Your task to perform on an android device: Search for "usb-c to usb-a" on amazon, select the first entry, add it to the cart, then select checkout. Image 0: 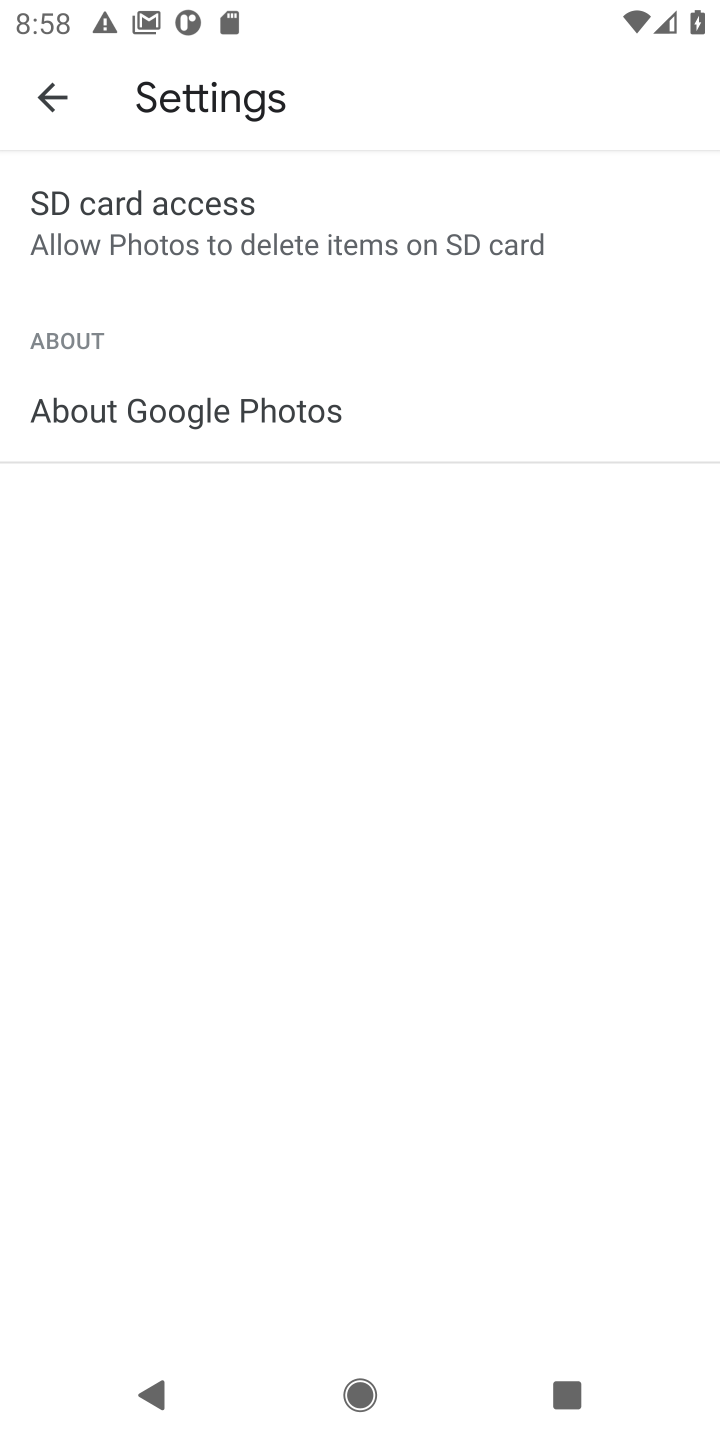
Step 0: press home button
Your task to perform on an android device: Search for "usb-c to usb-a" on amazon, select the first entry, add it to the cart, then select checkout. Image 1: 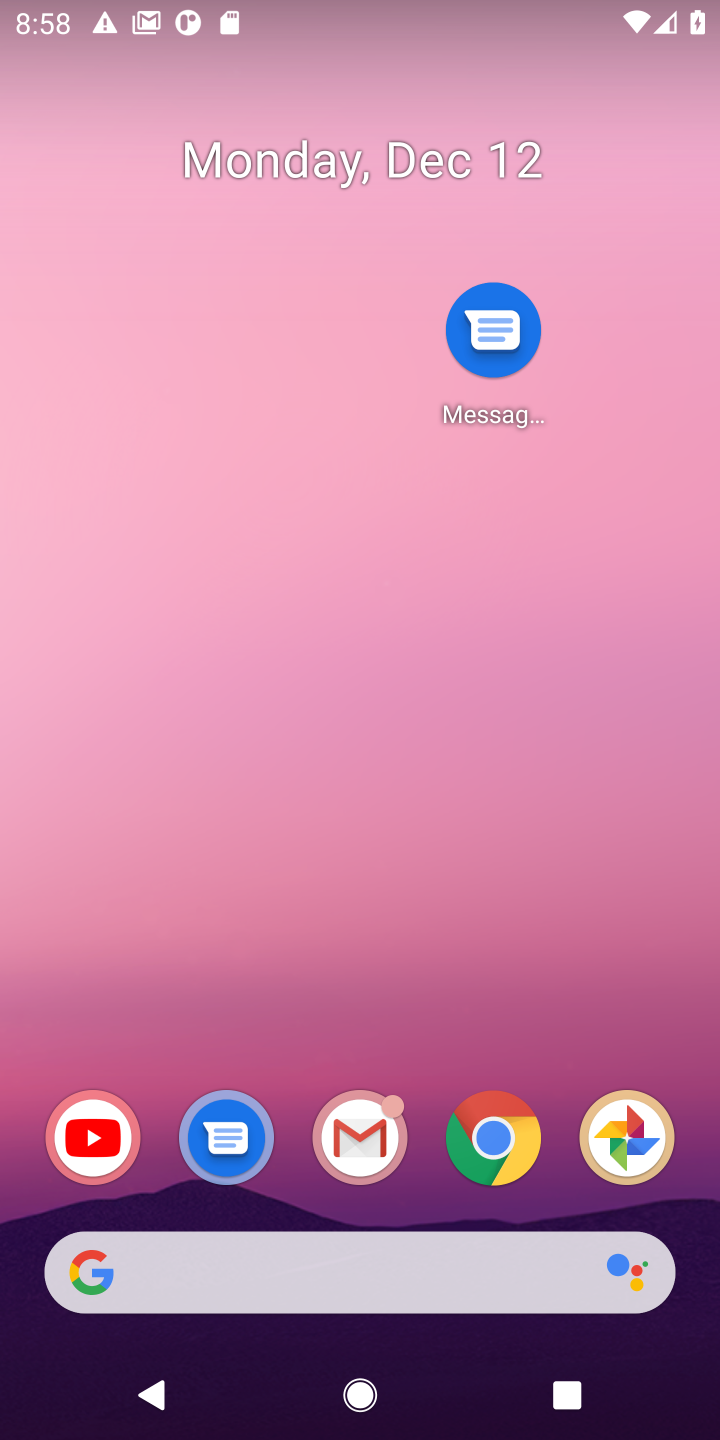
Step 1: drag from (263, 1111) to (241, 380)
Your task to perform on an android device: Search for "usb-c to usb-a" on amazon, select the first entry, add it to the cart, then select checkout. Image 2: 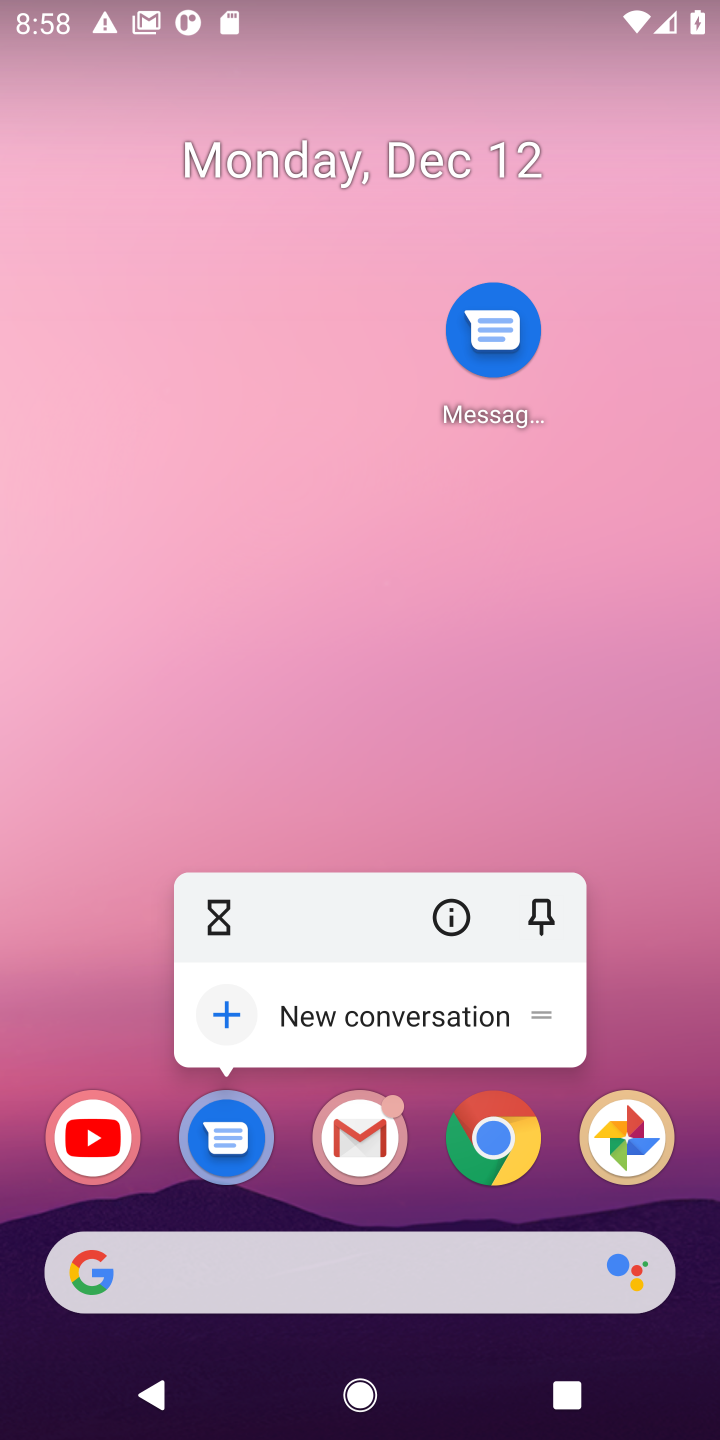
Step 2: click (146, 775)
Your task to perform on an android device: Search for "usb-c to usb-a" on amazon, select the first entry, add it to the cart, then select checkout. Image 3: 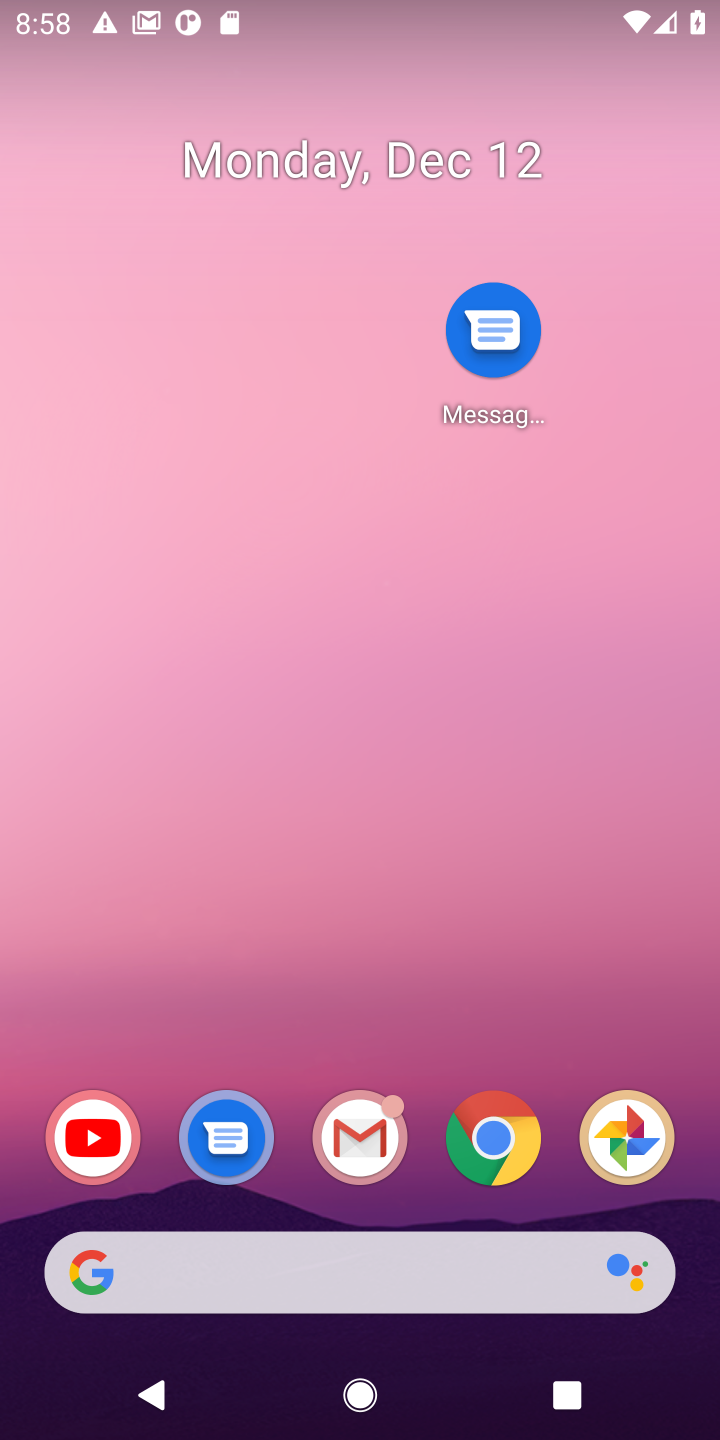
Step 3: drag from (346, 1228) to (418, 682)
Your task to perform on an android device: Search for "usb-c to usb-a" on amazon, select the first entry, add it to the cart, then select checkout. Image 4: 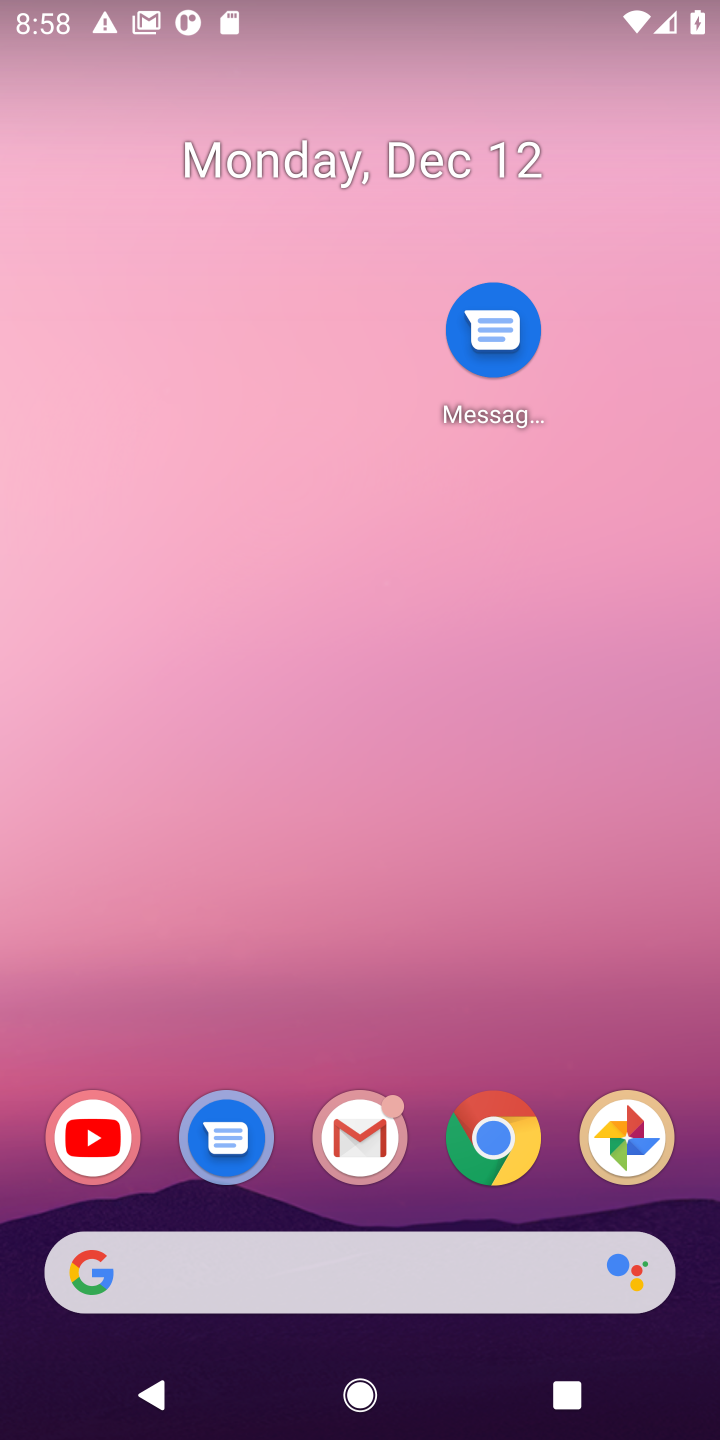
Step 4: drag from (299, 1149) to (213, 340)
Your task to perform on an android device: Search for "usb-c to usb-a" on amazon, select the first entry, add it to the cart, then select checkout. Image 5: 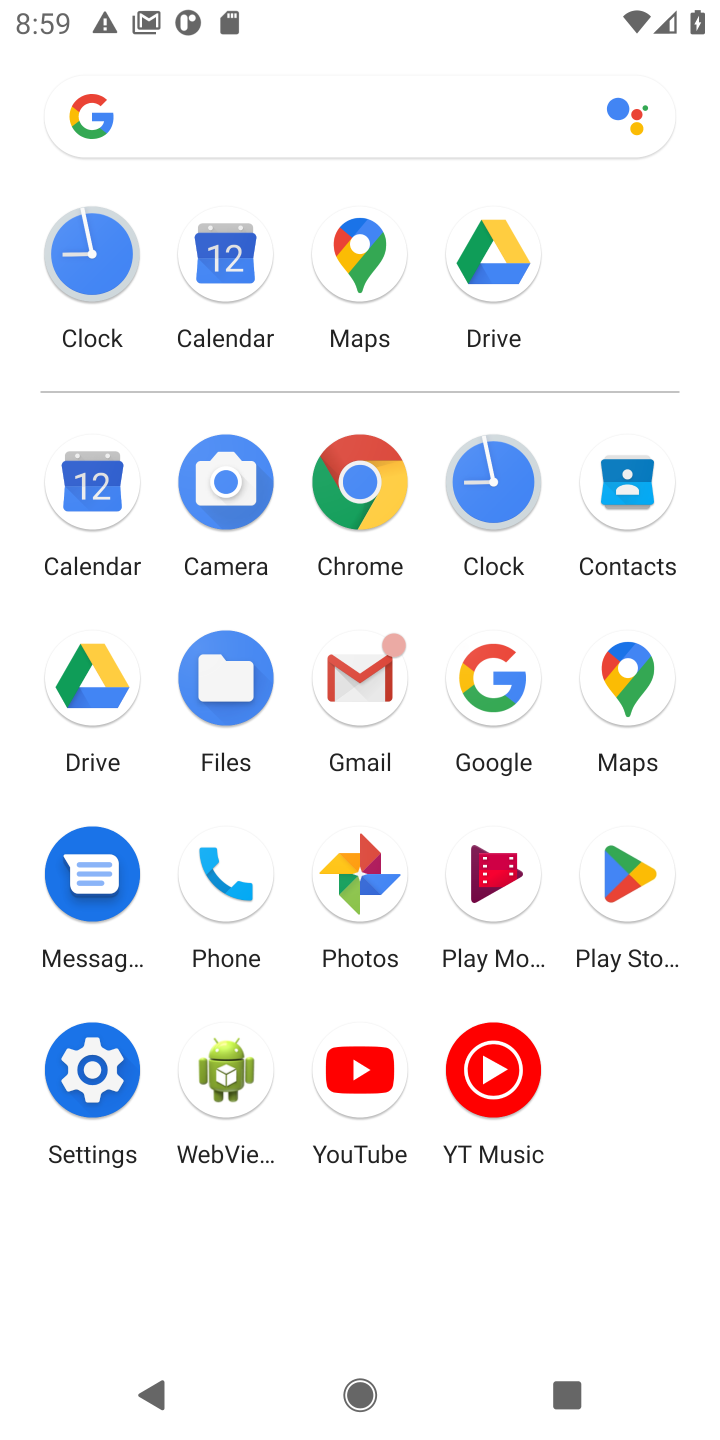
Step 5: click (479, 665)
Your task to perform on an android device: Search for "usb-c to usb-a" on amazon, select the first entry, add it to the cart, then select checkout. Image 6: 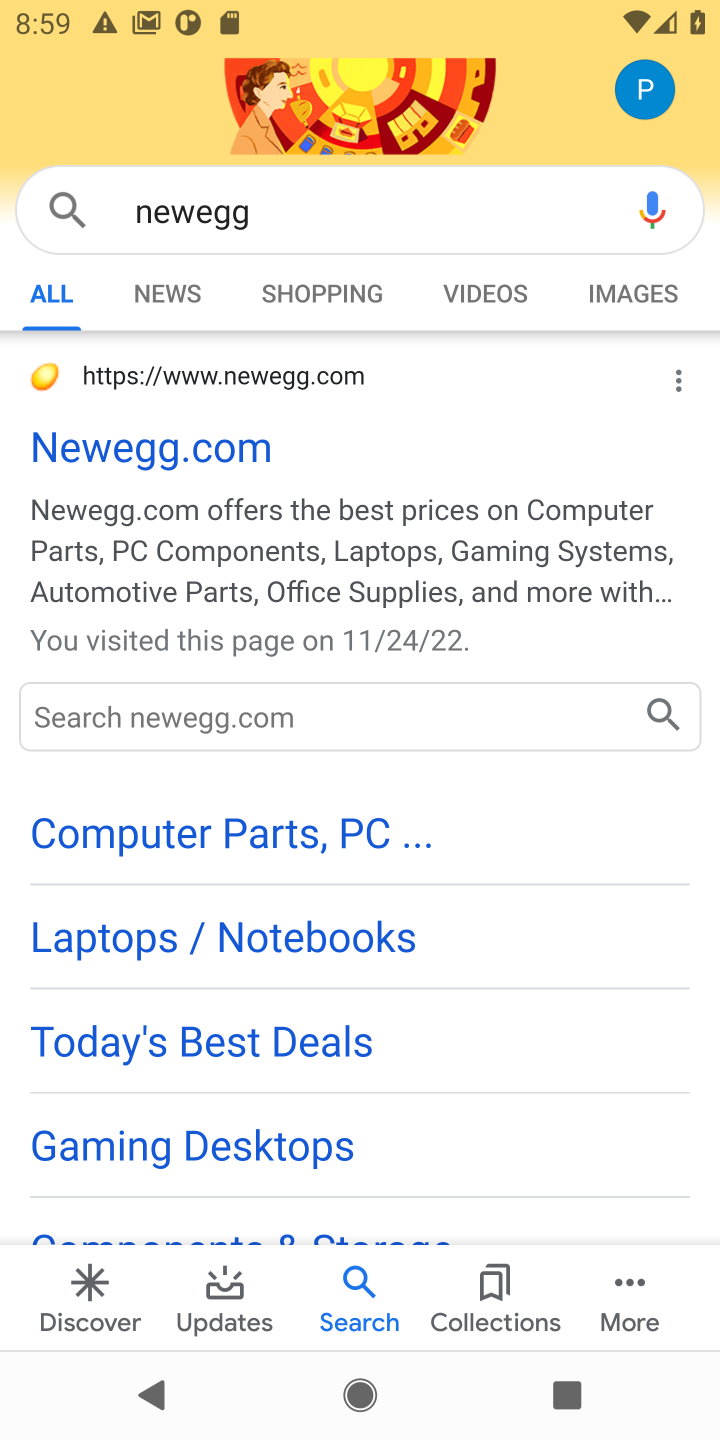
Step 6: click (171, 215)
Your task to perform on an android device: Search for "usb-c to usb-a" on amazon, select the first entry, add it to the cart, then select checkout. Image 7: 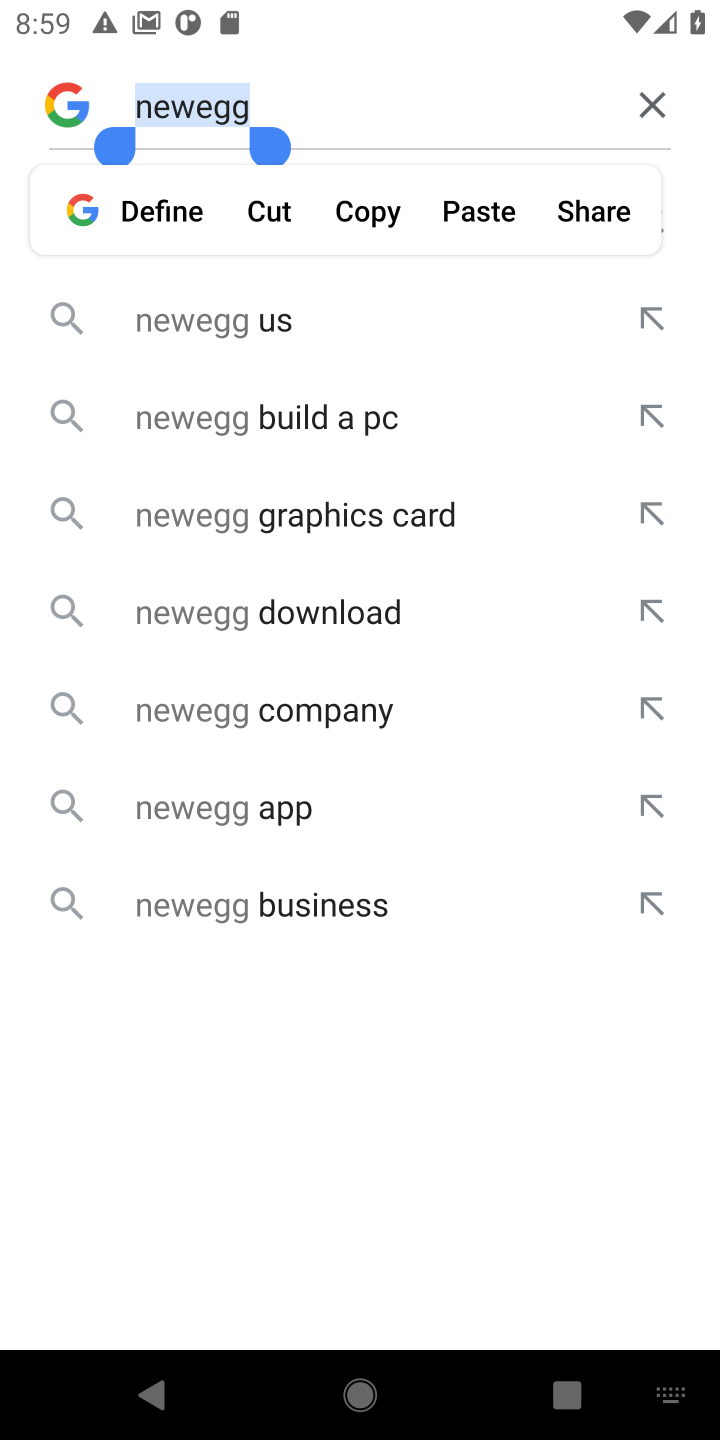
Step 7: click (641, 108)
Your task to perform on an android device: Search for "usb-c to usb-a" on amazon, select the first entry, add it to the cart, then select checkout. Image 8: 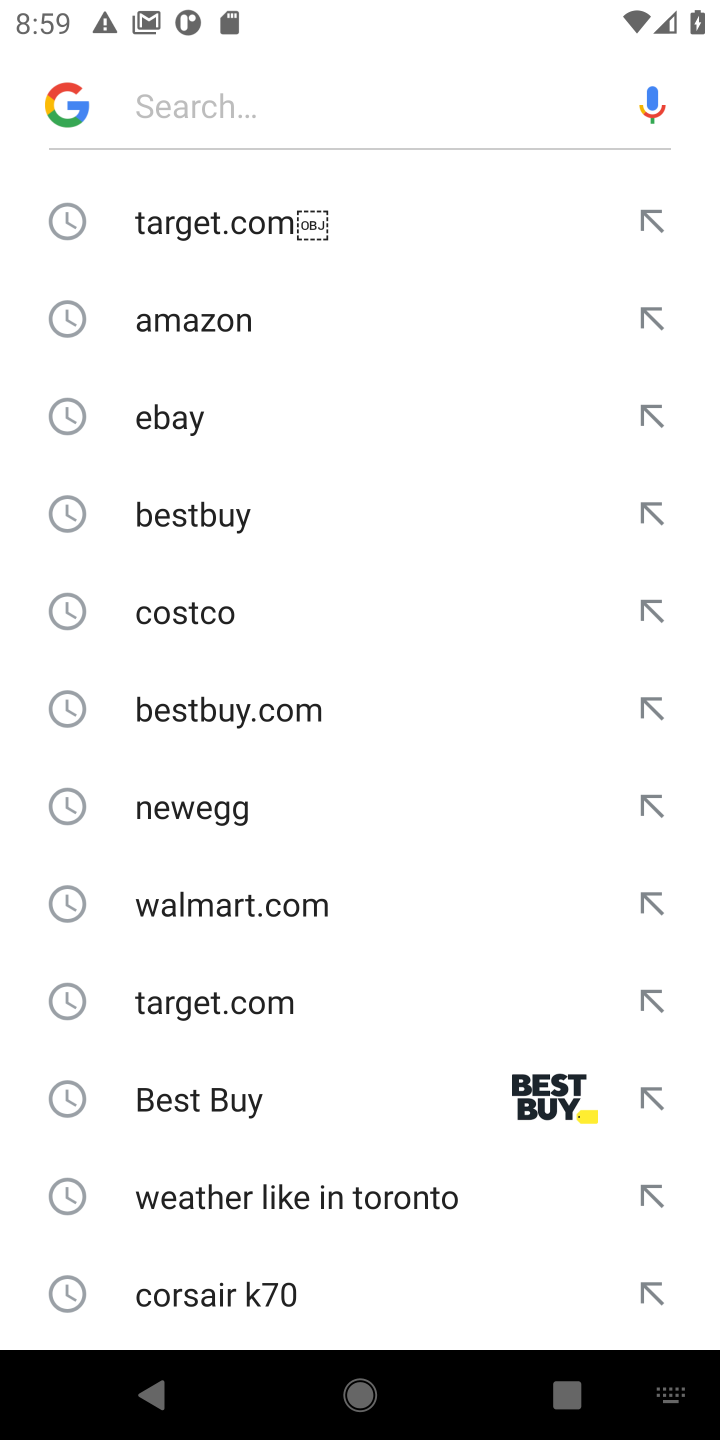
Step 8: click (205, 326)
Your task to perform on an android device: Search for "usb-c to usb-a" on amazon, select the first entry, add it to the cart, then select checkout. Image 9: 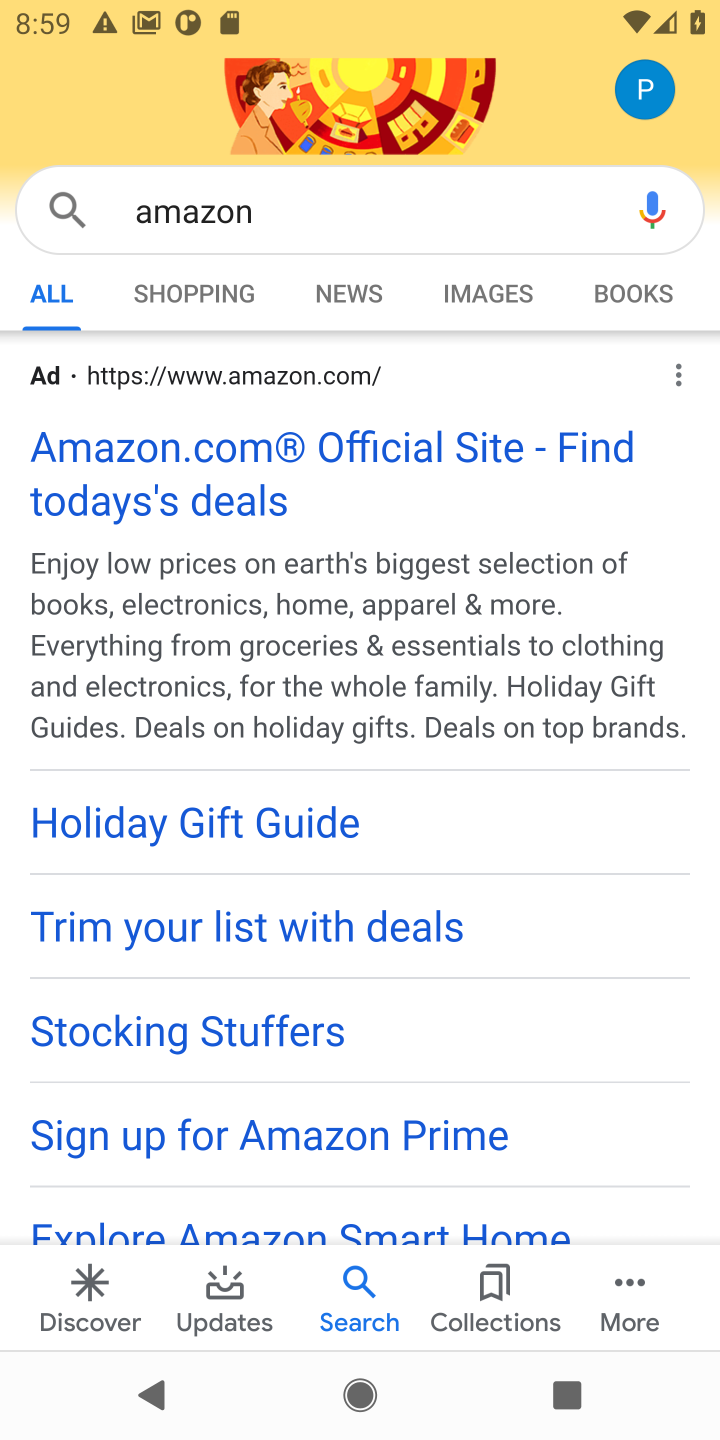
Step 9: click (189, 480)
Your task to perform on an android device: Search for "usb-c to usb-a" on amazon, select the first entry, add it to the cart, then select checkout. Image 10: 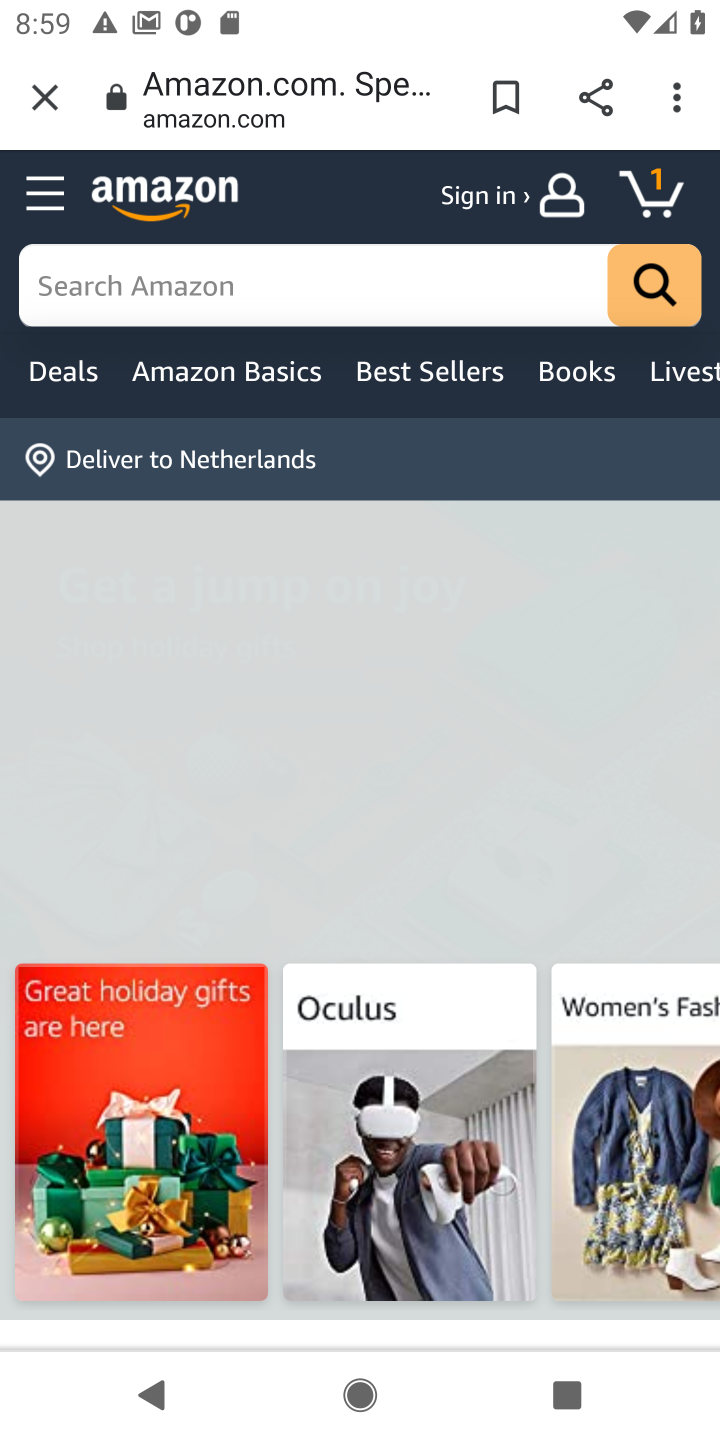
Step 10: click (170, 302)
Your task to perform on an android device: Search for "usb-c to usb-a" on amazon, select the first entry, add it to the cart, then select checkout. Image 11: 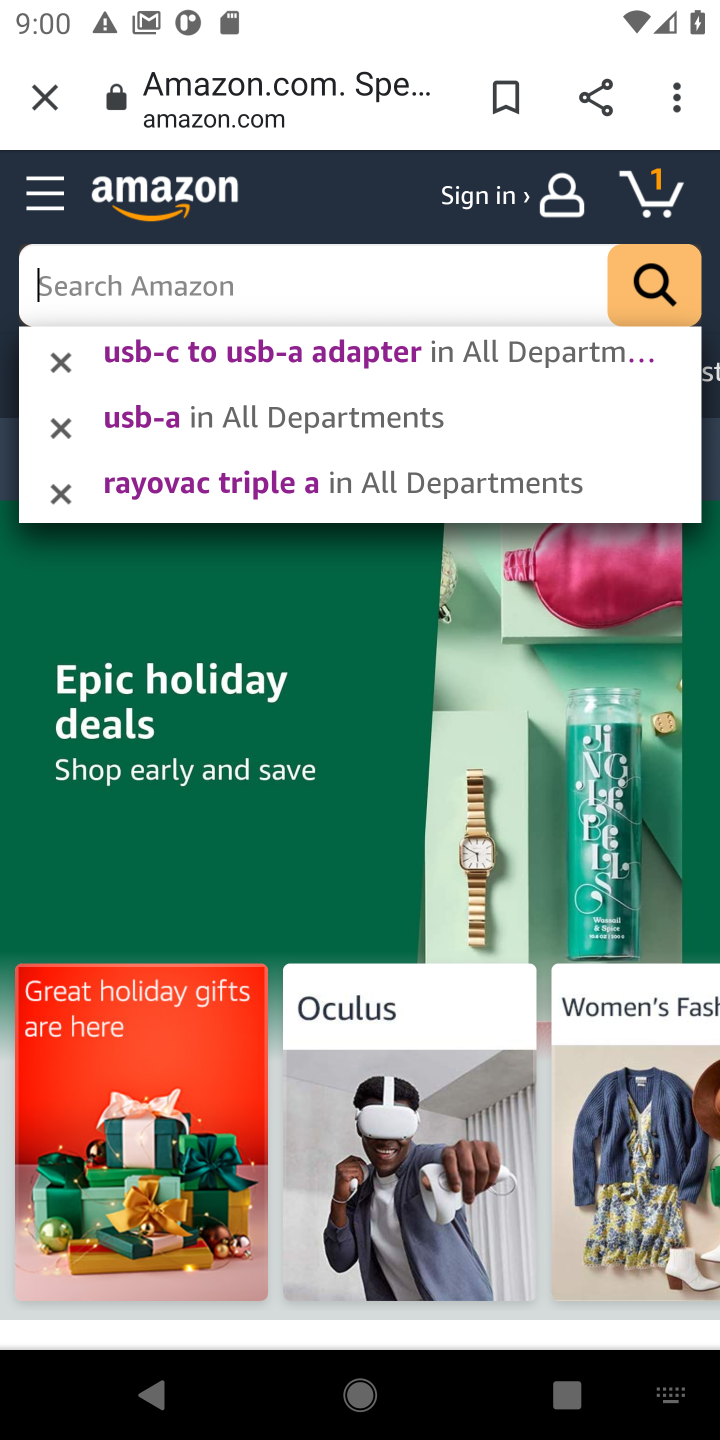
Step 11: type "usb-c to usb-a"
Your task to perform on an android device: Search for "usb-c to usb-a" on amazon, select the first entry, add it to the cart, then select checkout. Image 12: 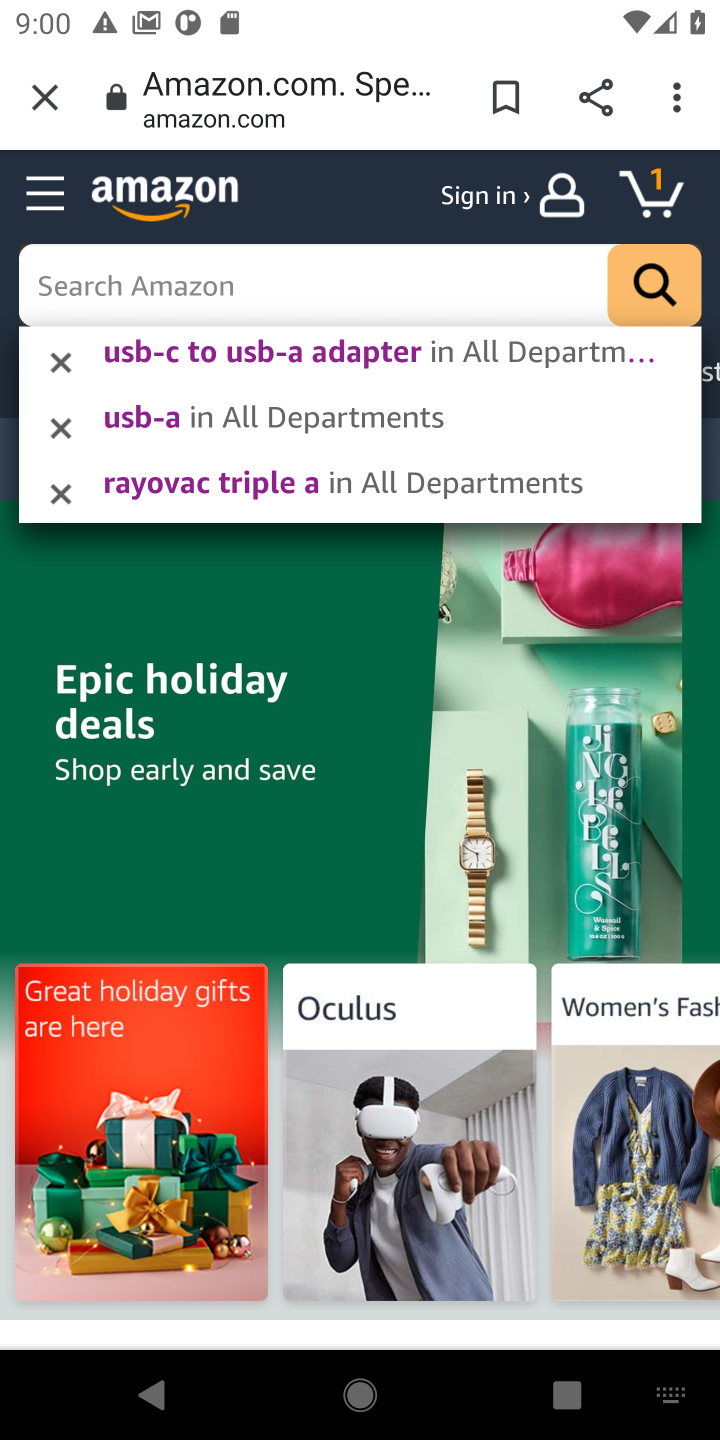
Step 12: click (630, 293)
Your task to perform on an android device: Search for "usb-c to usb-a" on amazon, select the first entry, add it to the cart, then select checkout. Image 13: 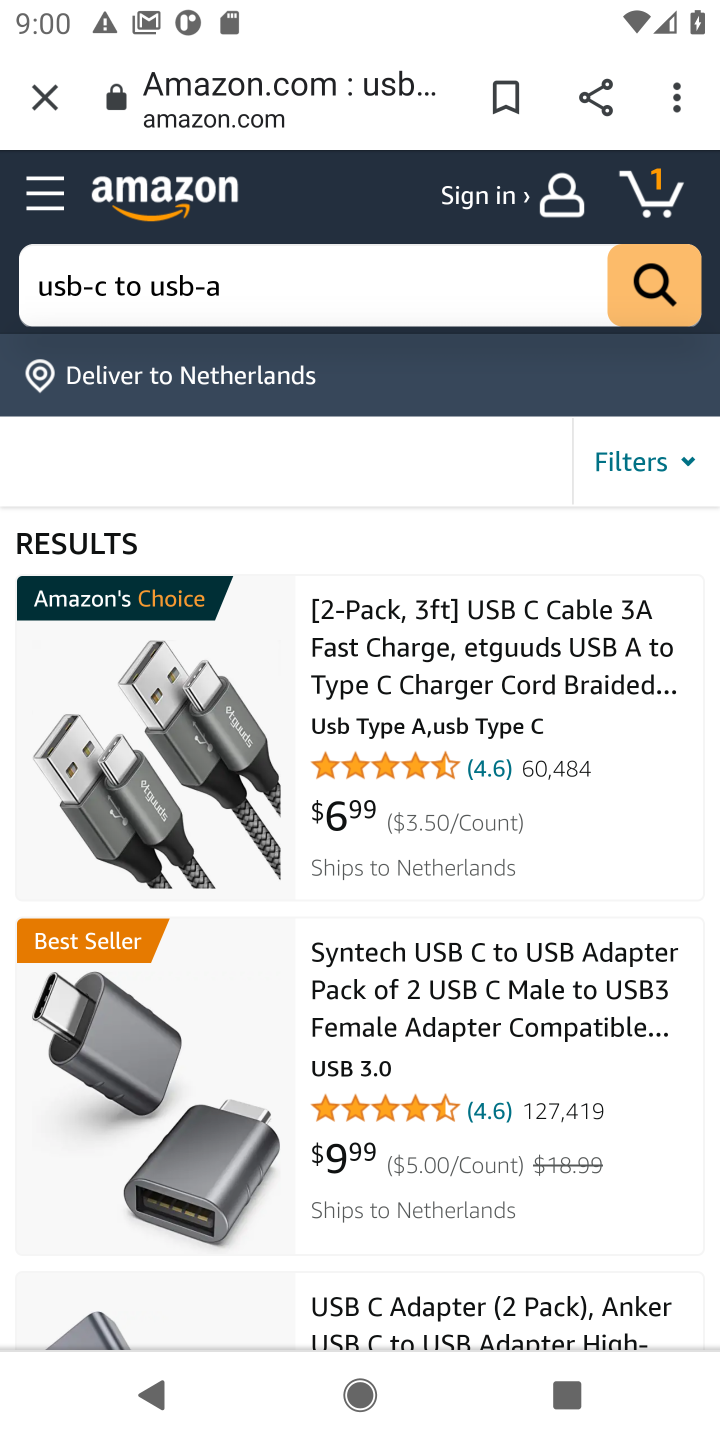
Step 13: click (662, 287)
Your task to perform on an android device: Search for "usb-c to usb-a" on amazon, select the first entry, add it to the cart, then select checkout. Image 14: 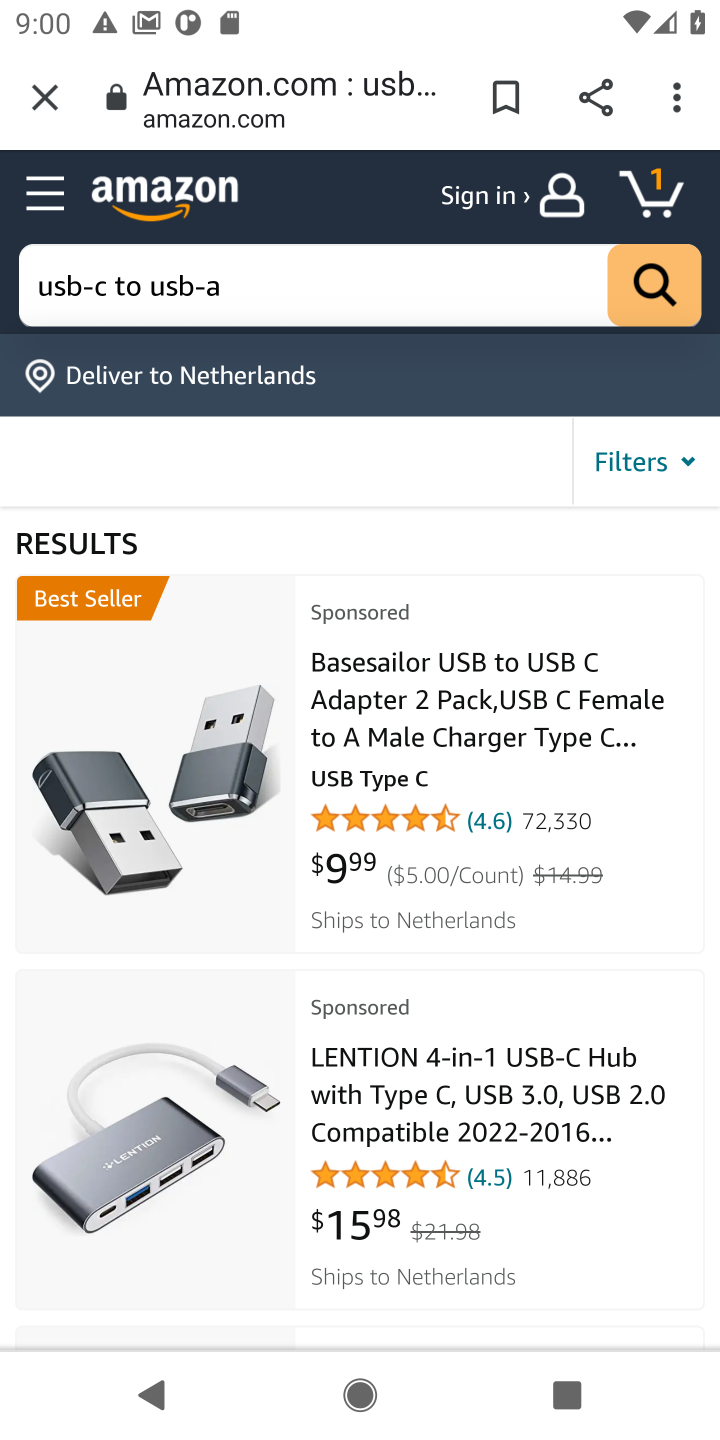
Step 14: click (415, 721)
Your task to perform on an android device: Search for "usb-c to usb-a" on amazon, select the first entry, add it to the cart, then select checkout. Image 15: 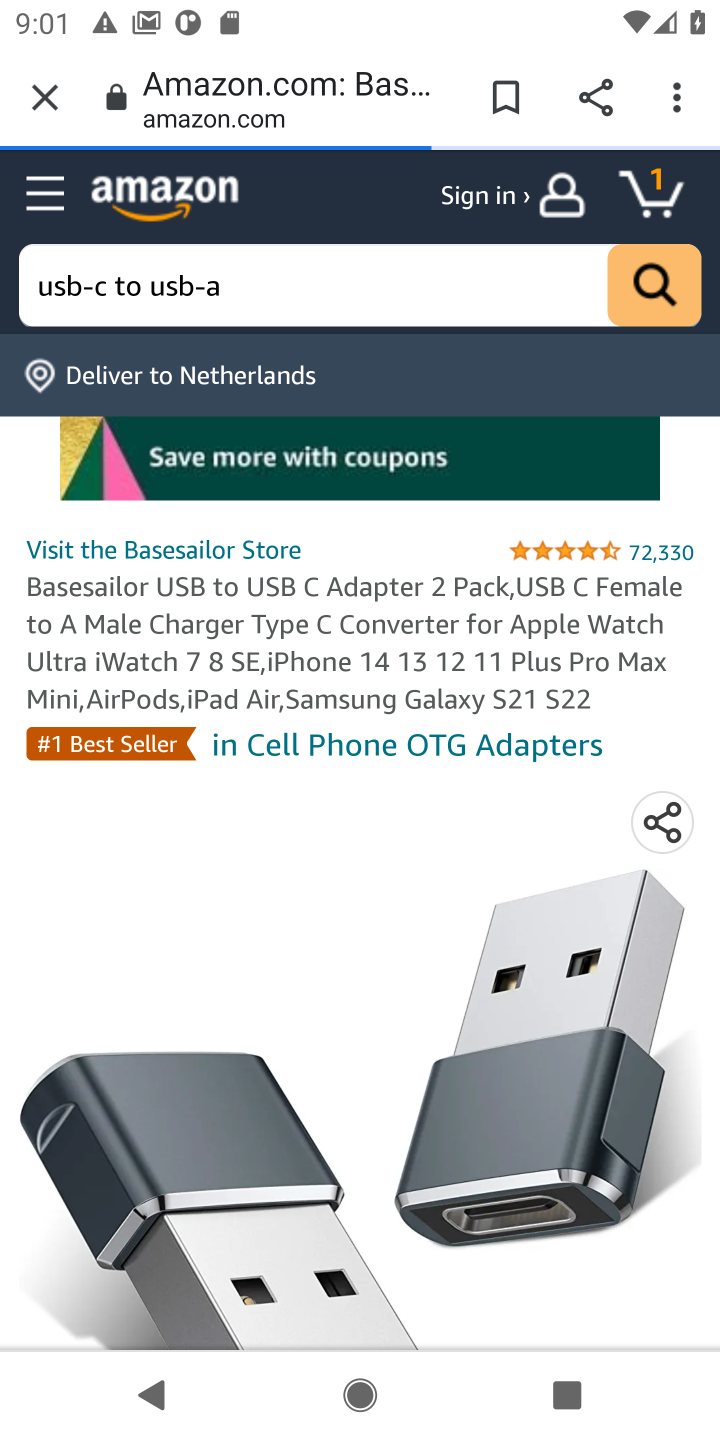
Step 15: drag from (413, 1078) to (361, 626)
Your task to perform on an android device: Search for "usb-c to usb-a" on amazon, select the first entry, add it to the cart, then select checkout. Image 16: 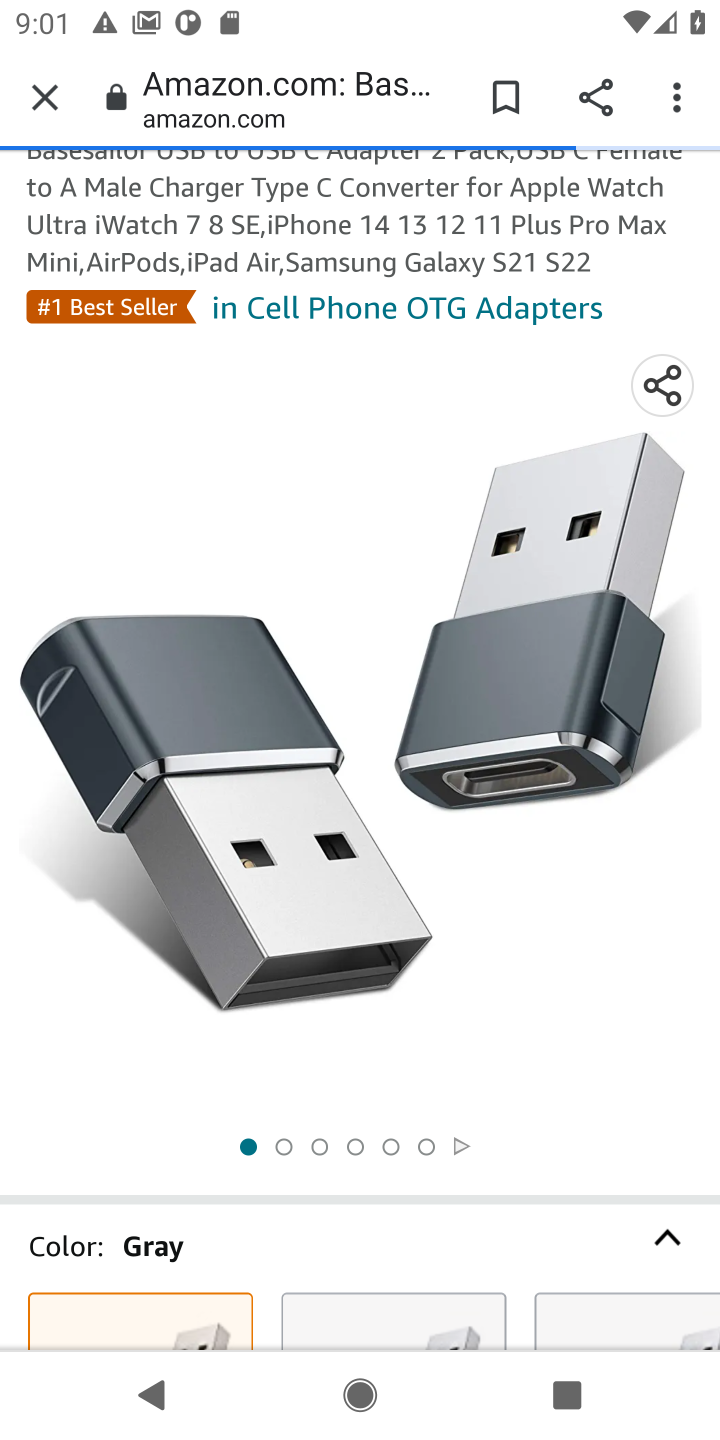
Step 16: drag from (369, 1048) to (344, 656)
Your task to perform on an android device: Search for "usb-c to usb-a" on amazon, select the first entry, add it to the cart, then select checkout. Image 17: 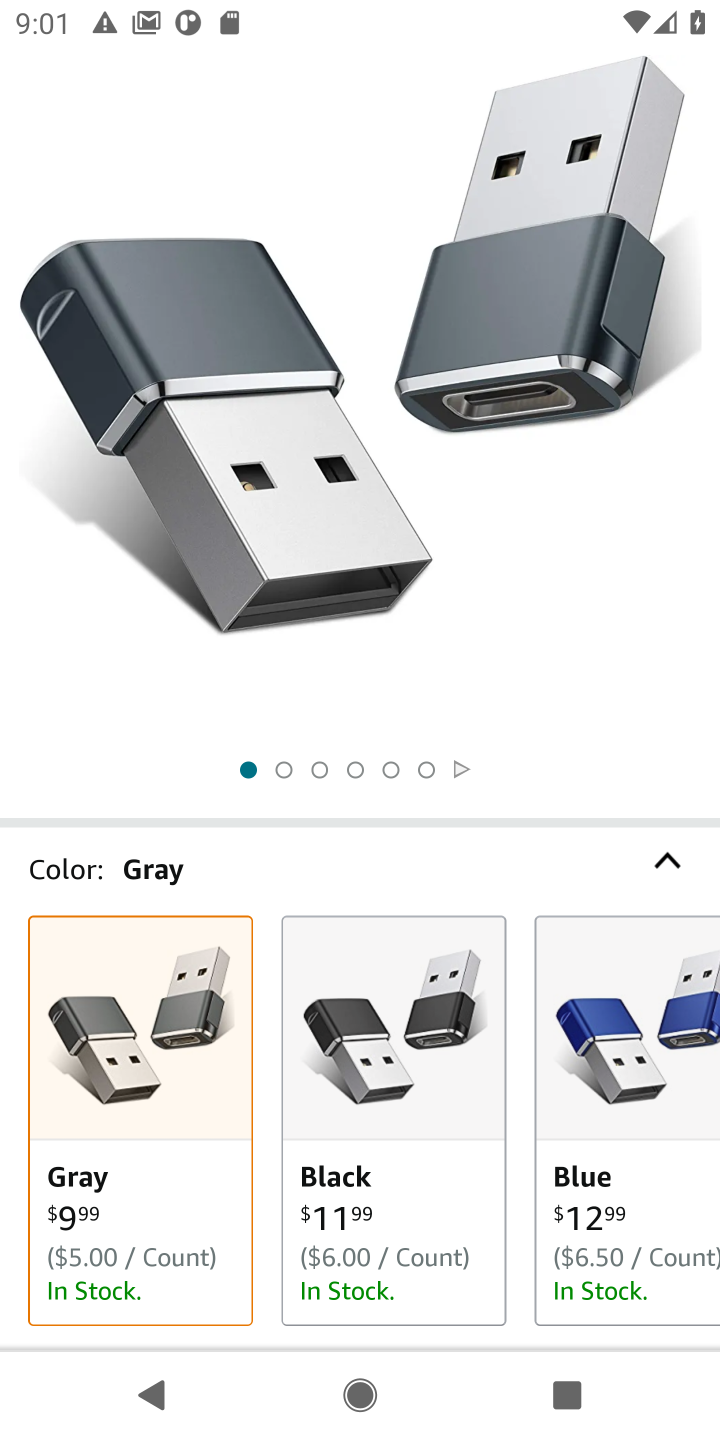
Step 17: drag from (269, 1209) to (263, 470)
Your task to perform on an android device: Search for "usb-c to usb-a" on amazon, select the first entry, add it to the cart, then select checkout. Image 18: 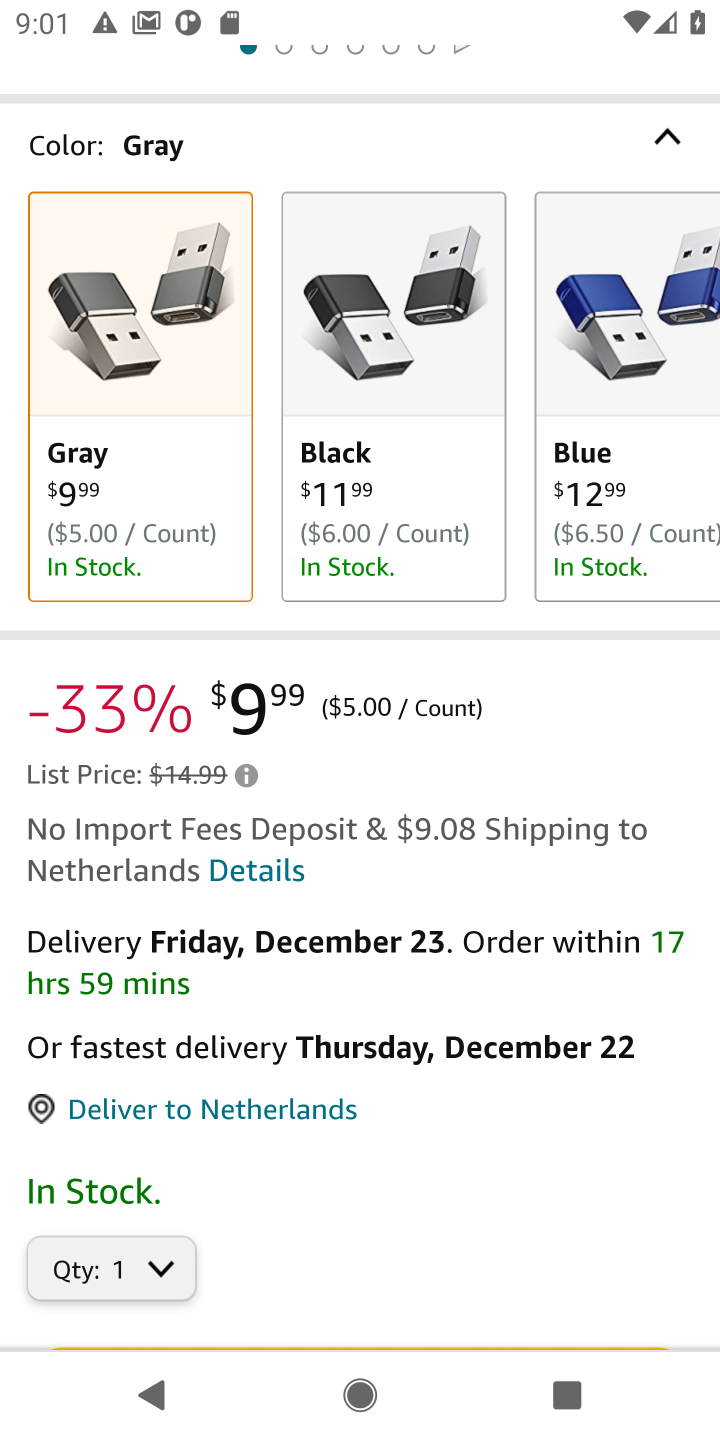
Step 18: drag from (316, 1179) to (273, 643)
Your task to perform on an android device: Search for "usb-c to usb-a" on amazon, select the first entry, add it to the cart, then select checkout. Image 19: 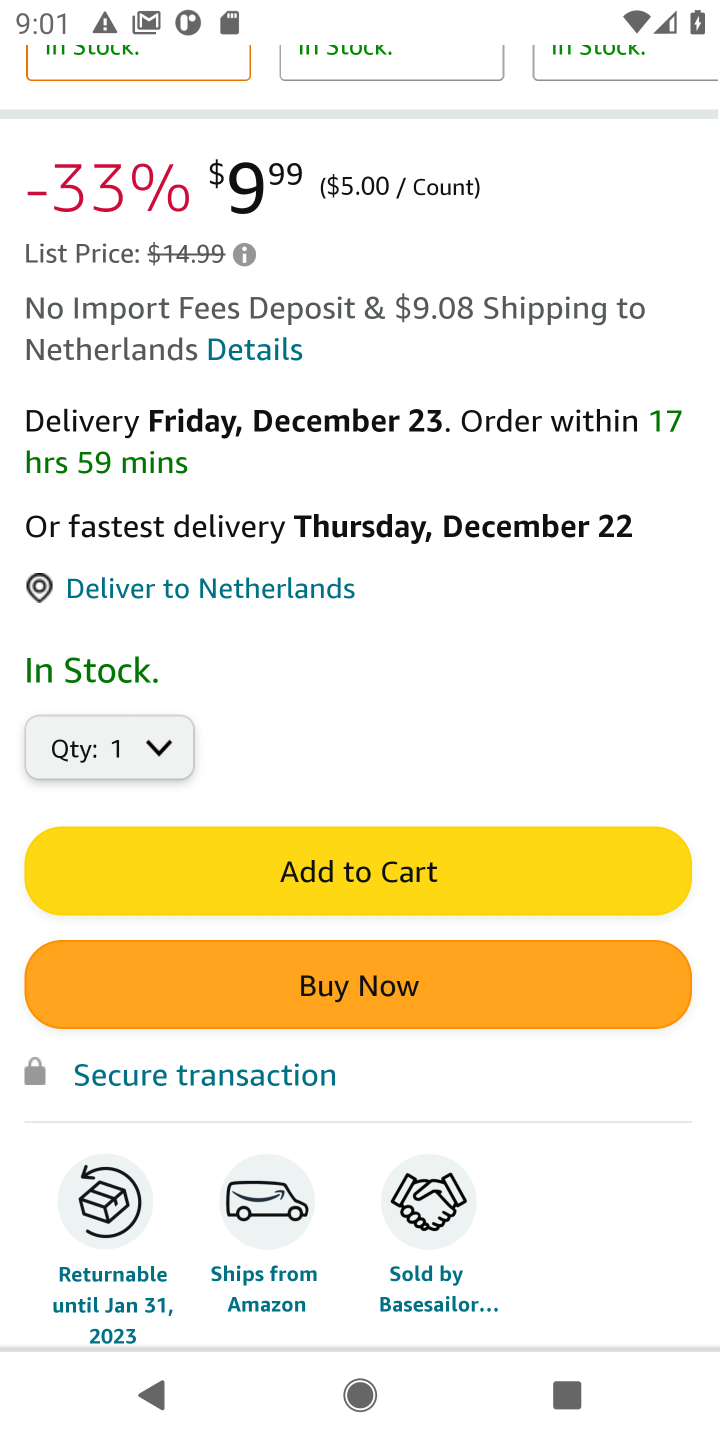
Step 19: click (286, 857)
Your task to perform on an android device: Search for "usb-c to usb-a" on amazon, select the first entry, add it to the cart, then select checkout. Image 20: 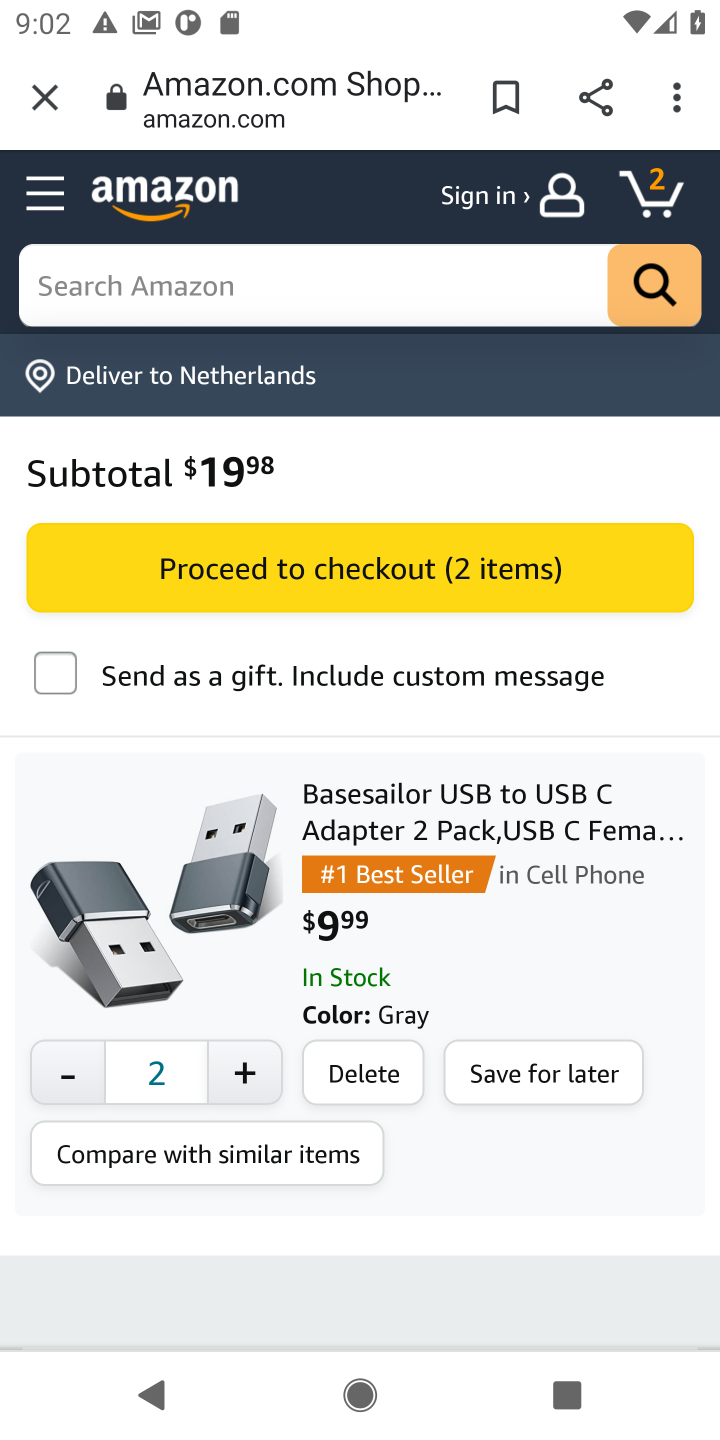
Step 20: click (394, 559)
Your task to perform on an android device: Search for "usb-c to usb-a" on amazon, select the first entry, add it to the cart, then select checkout. Image 21: 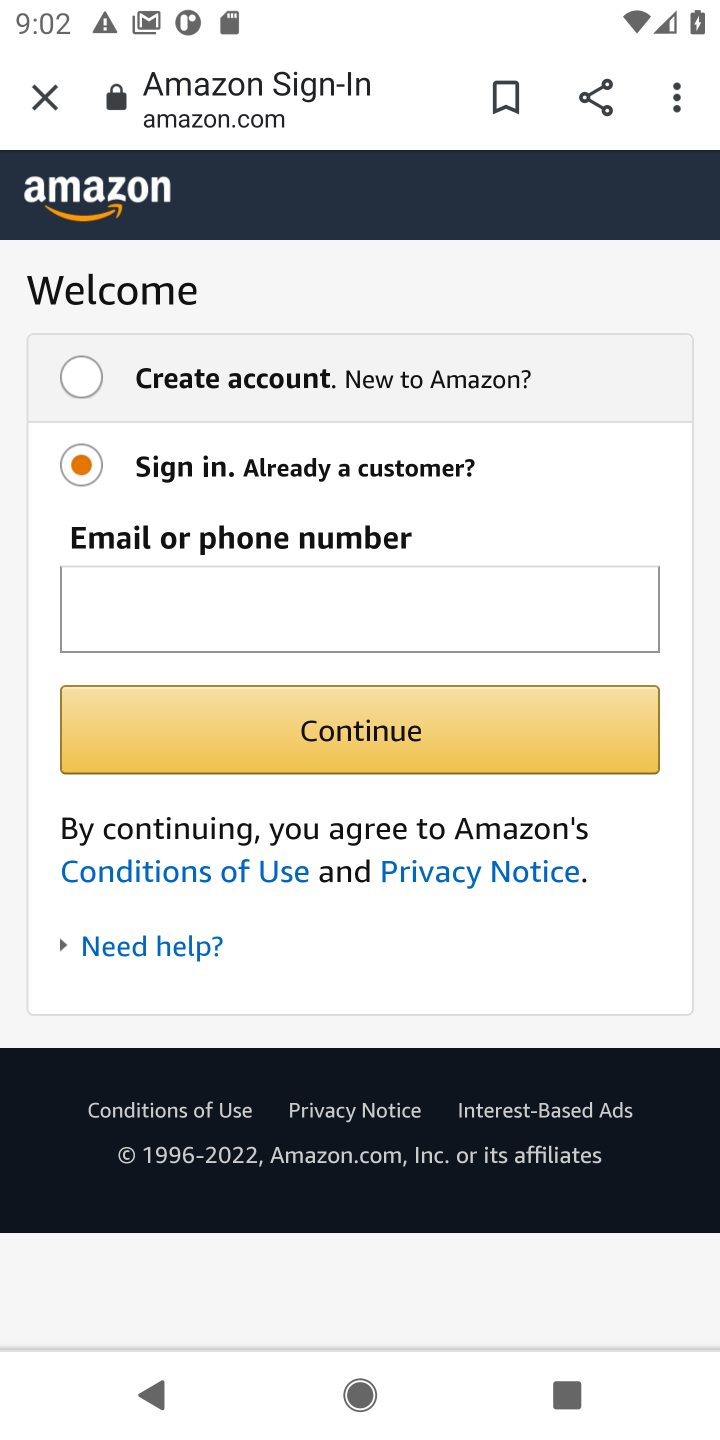
Step 21: task complete